Your task to perform on an android device: turn off notifications settings in the gmail app Image 0: 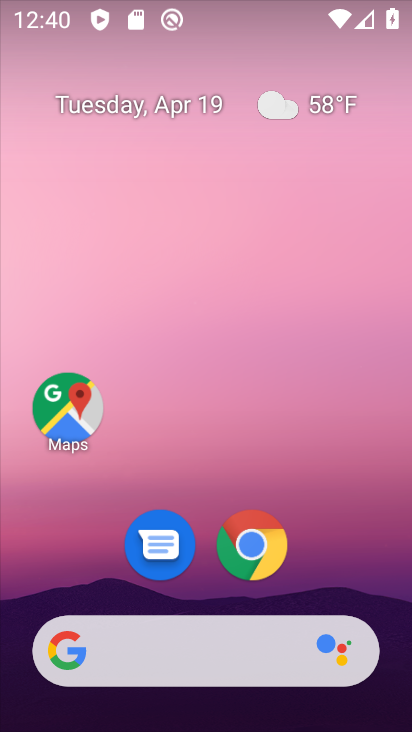
Step 0: drag from (242, 477) to (323, 2)
Your task to perform on an android device: turn off notifications settings in the gmail app Image 1: 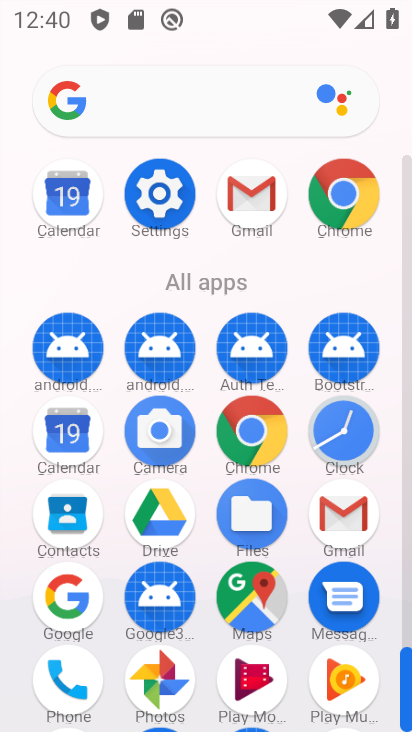
Step 1: click (258, 195)
Your task to perform on an android device: turn off notifications settings in the gmail app Image 2: 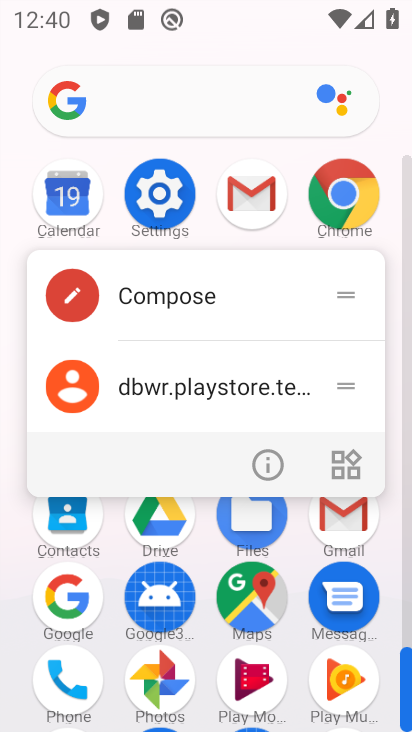
Step 2: click (269, 462)
Your task to perform on an android device: turn off notifications settings in the gmail app Image 3: 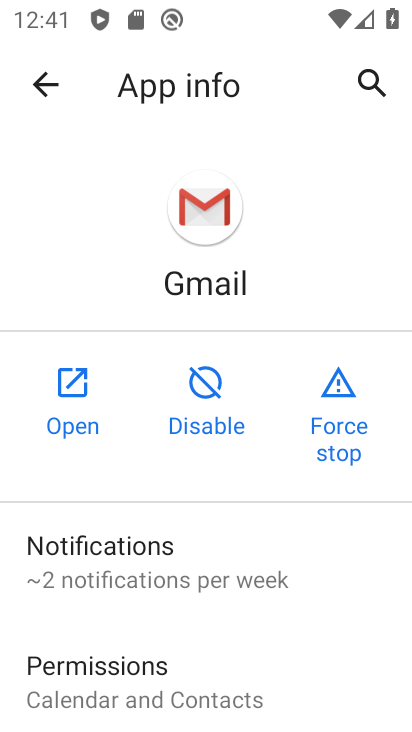
Step 3: click (218, 554)
Your task to perform on an android device: turn off notifications settings in the gmail app Image 4: 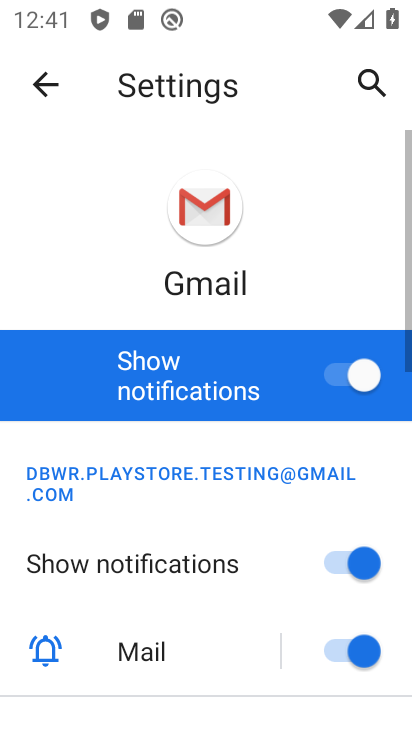
Step 4: click (381, 360)
Your task to perform on an android device: turn off notifications settings in the gmail app Image 5: 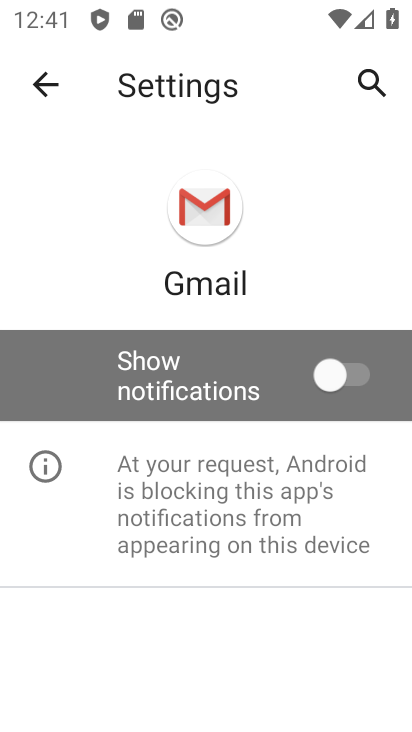
Step 5: task complete